Your task to perform on an android device: turn off wifi Image 0: 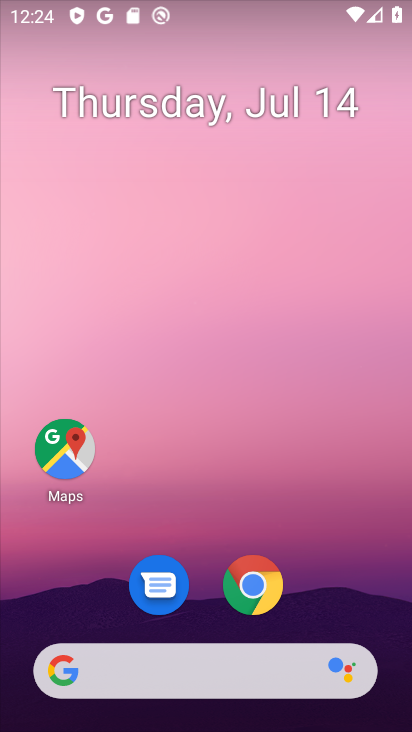
Step 0: drag from (210, 459) to (324, 13)
Your task to perform on an android device: turn off wifi Image 1: 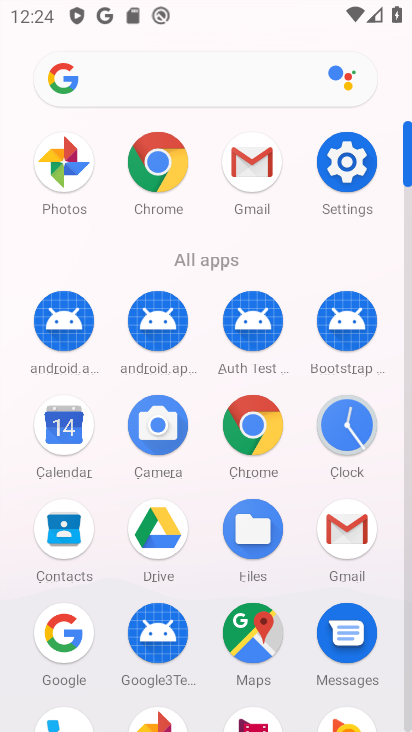
Step 1: click (353, 162)
Your task to perform on an android device: turn off wifi Image 2: 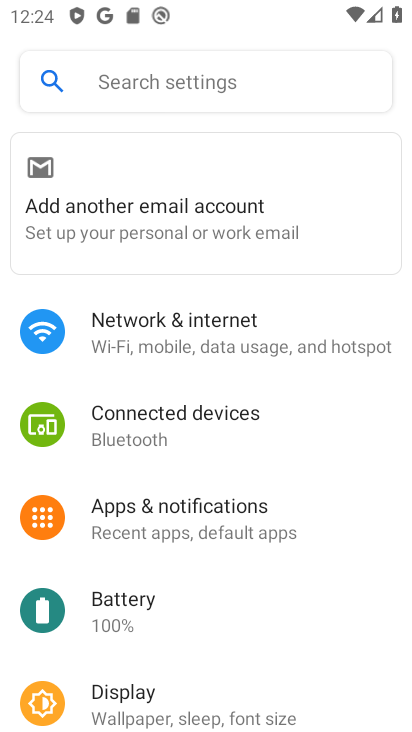
Step 2: click (221, 330)
Your task to perform on an android device: turn off wifi Image 3: 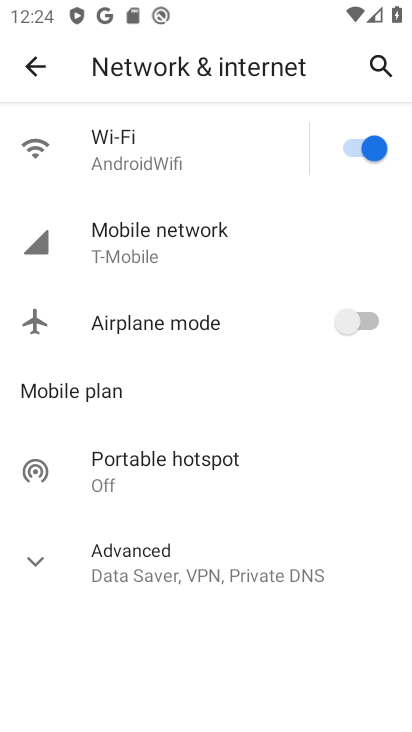
Step 3: click (363, 139)
Your task to perform on an android device: turn off wifi Image 4: 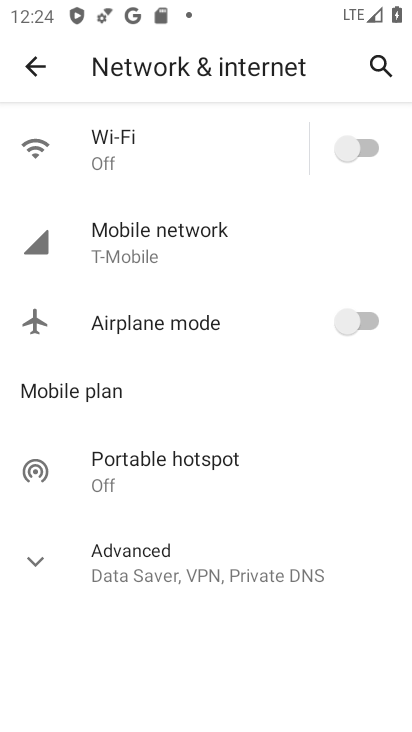
Step 4: task complete